Your task to perform on an android device: open app "NewsBreak: Local News & Alerts" Image 0: 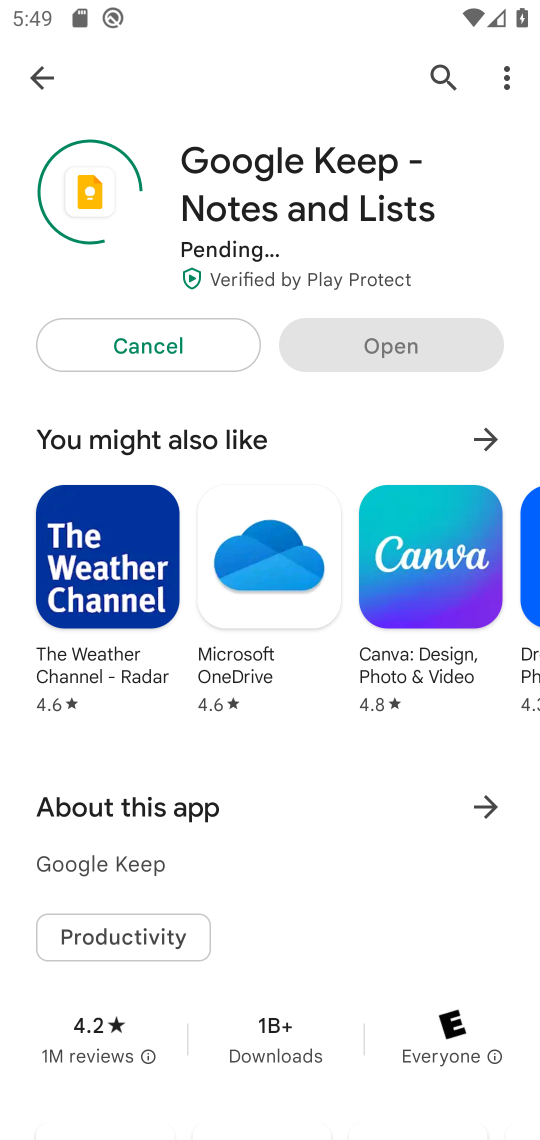
Step 0: press home button
Your task to perform on an android device: open app "NewsBreak: Local News & Alerts" Image 1: 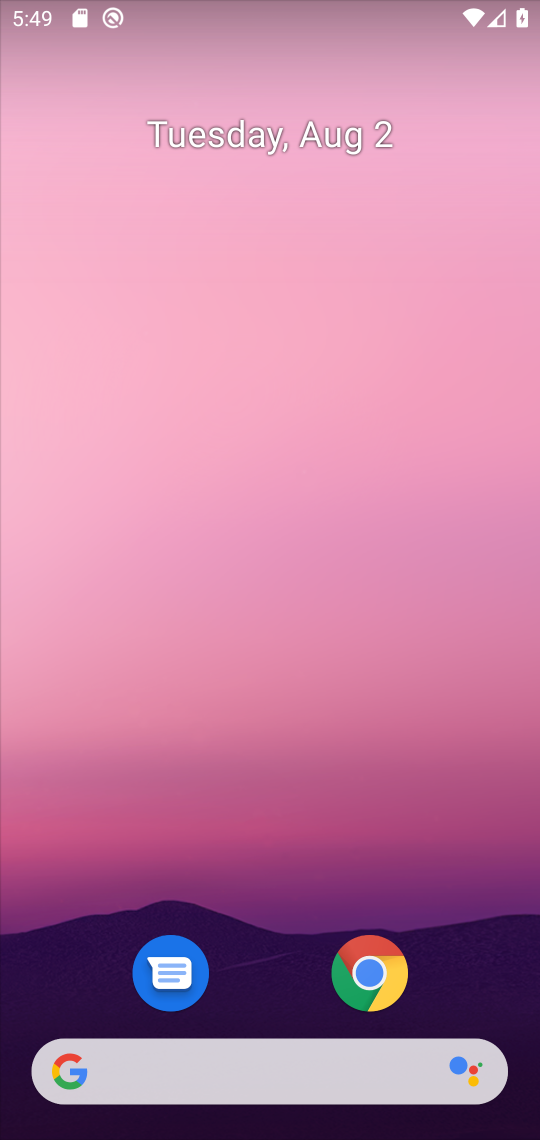
Step 1: drag from (258, 944) to (279, 55)
Your task to perform on an android device: open app "NewsBreak: Local News & Alerts" Image 2: 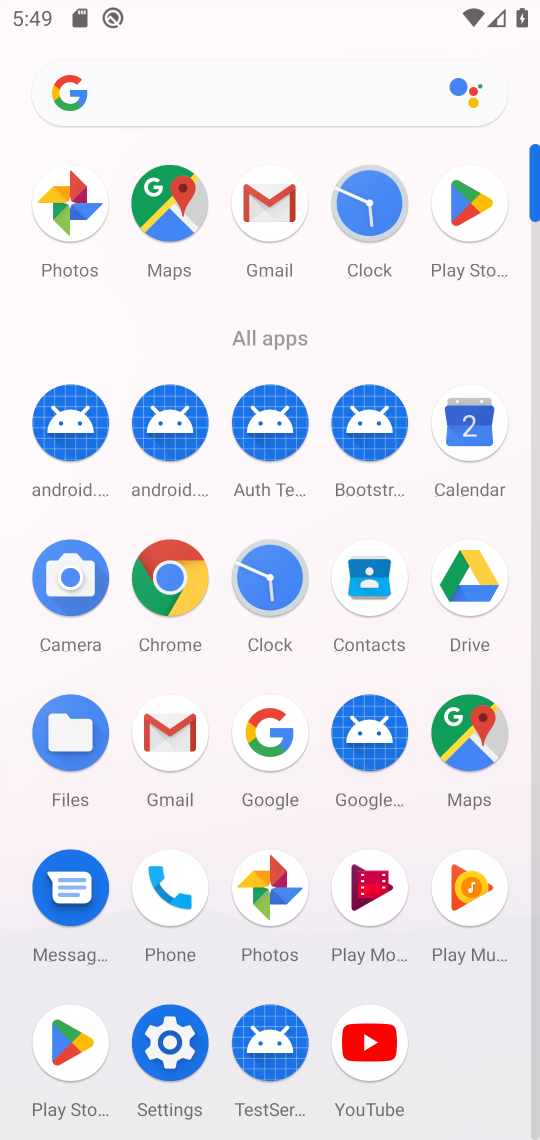
Step 2: click (464, 203)
Your task to perform on an android device: open app "NewsBreak: Local News & Alerts" Image 3: 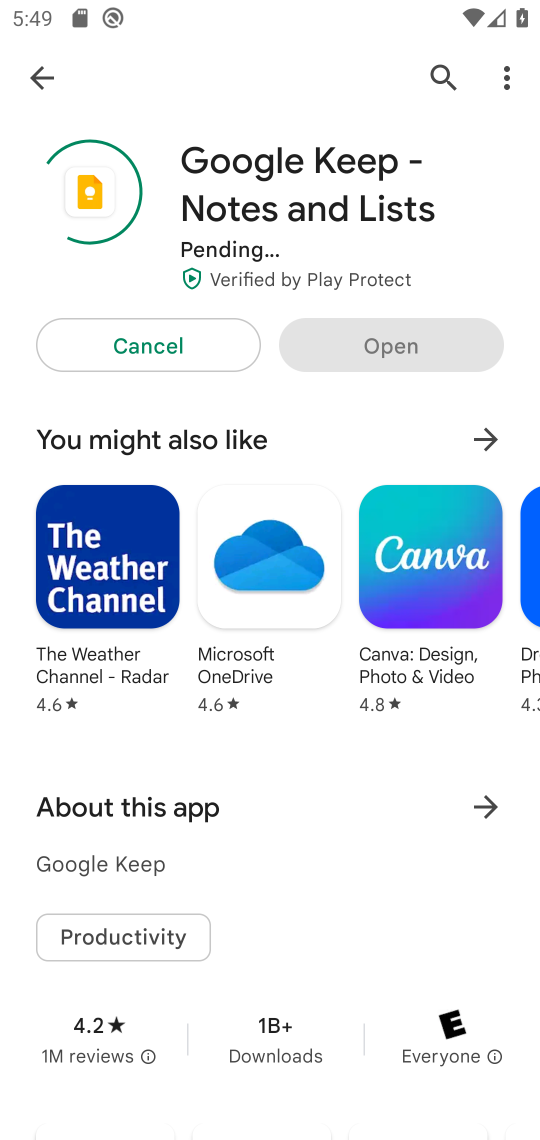
Step 3: click (436, 78)
Your task to perform on an android device: open app "NewsBreak: Local News & Alerts" Image 4: 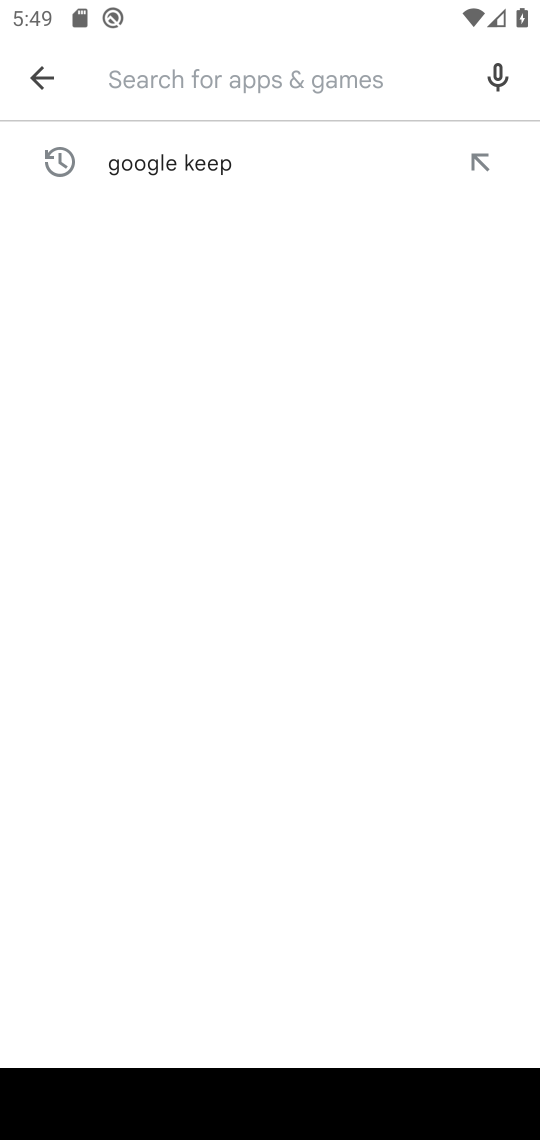
Step 4: type "newsbreak: local news & alerts"
Your task to perform on an android device: open app "NewsBreak: Local News & Alerts" Image 5: 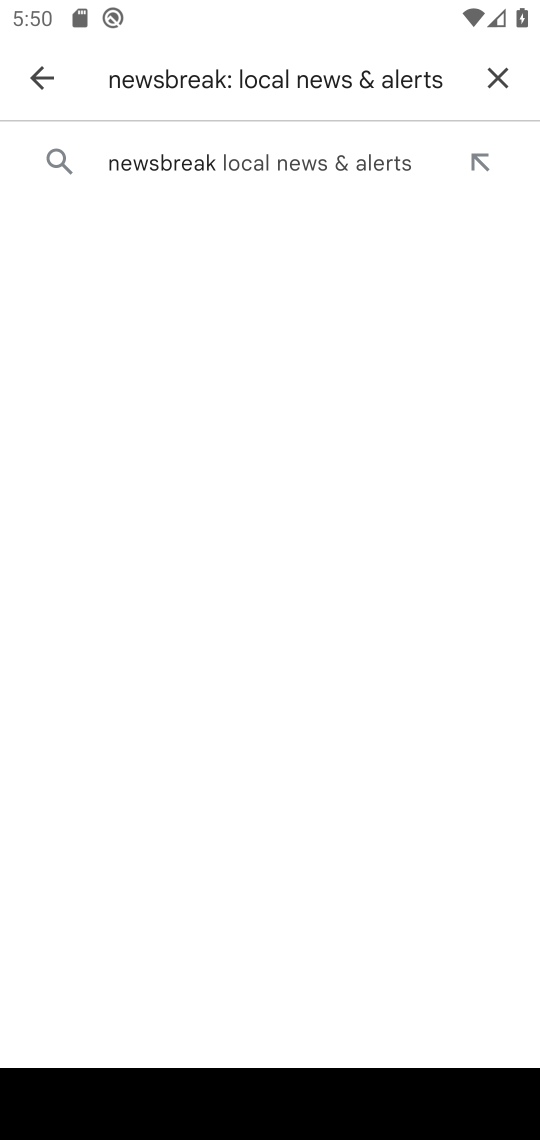
Step 5: click (327, 155)
Your task to perform on an android device: open app "NewsBreak: Local News & Alerts" Image 6: 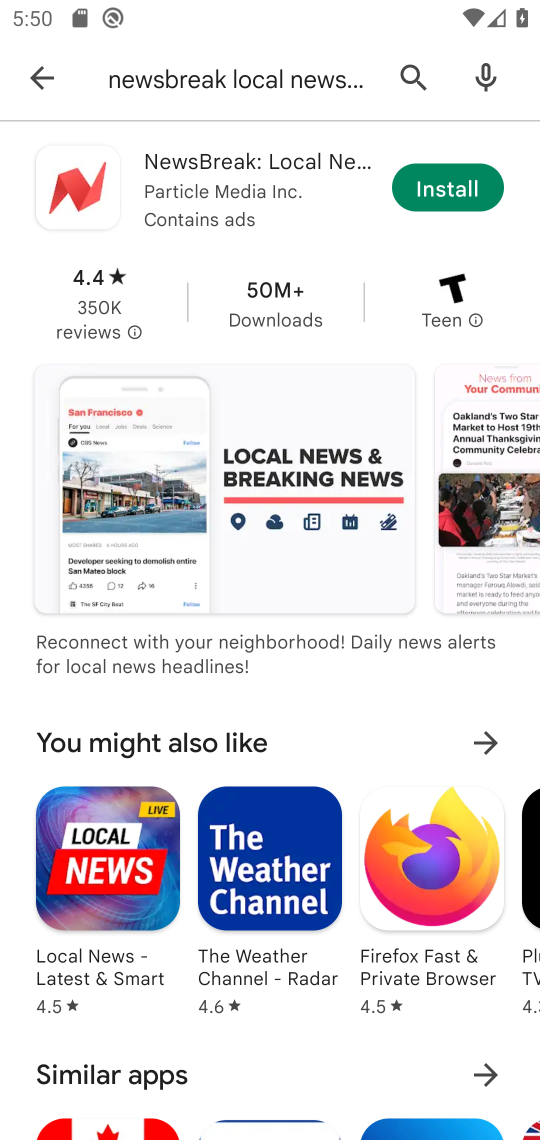
Step 6: click (286, 160)
Your task to perform on an android device: open app "NewsBreak: Local News & Alerts" Image 7: 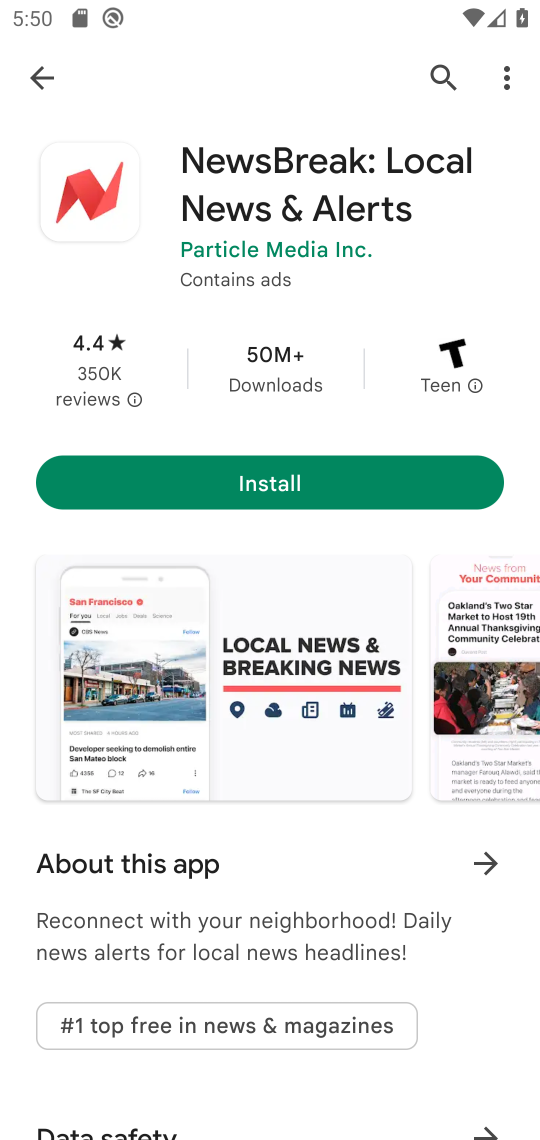
Step 7: task complete